Your task to perform on an android device: show emergency info Image 0: 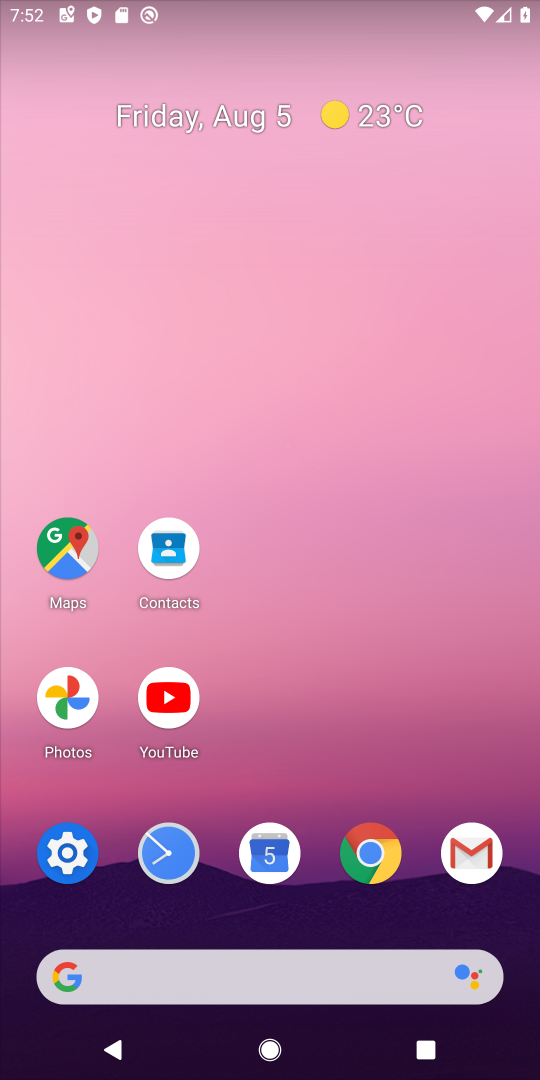
Step 0: drag from (309, 788) to (242, 144)
Your task to perform on an android device: show emergency info Image 1: 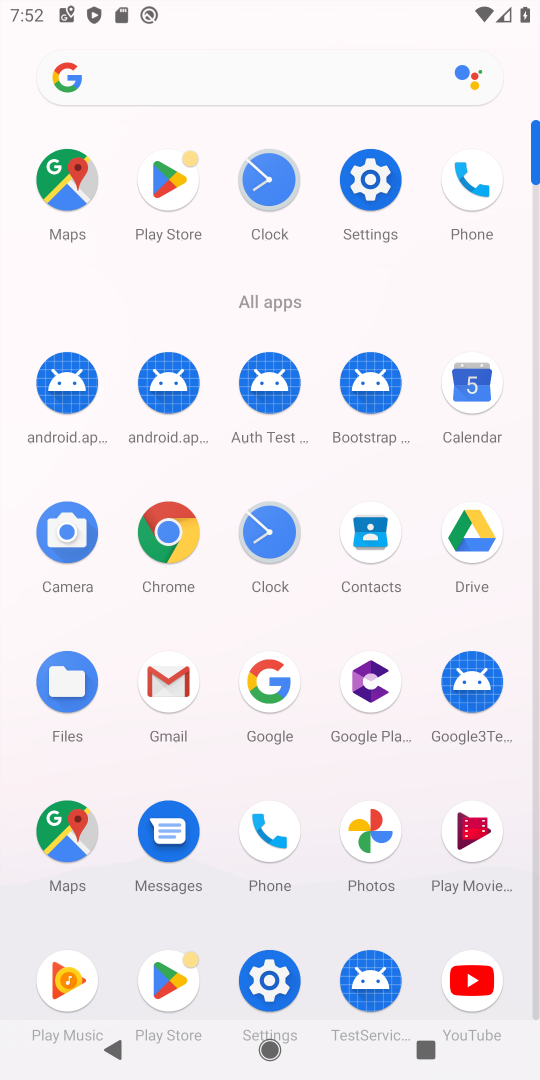
Step 1: click (390, 182)
Your task to perform on an android device: show emergency info Image 2: 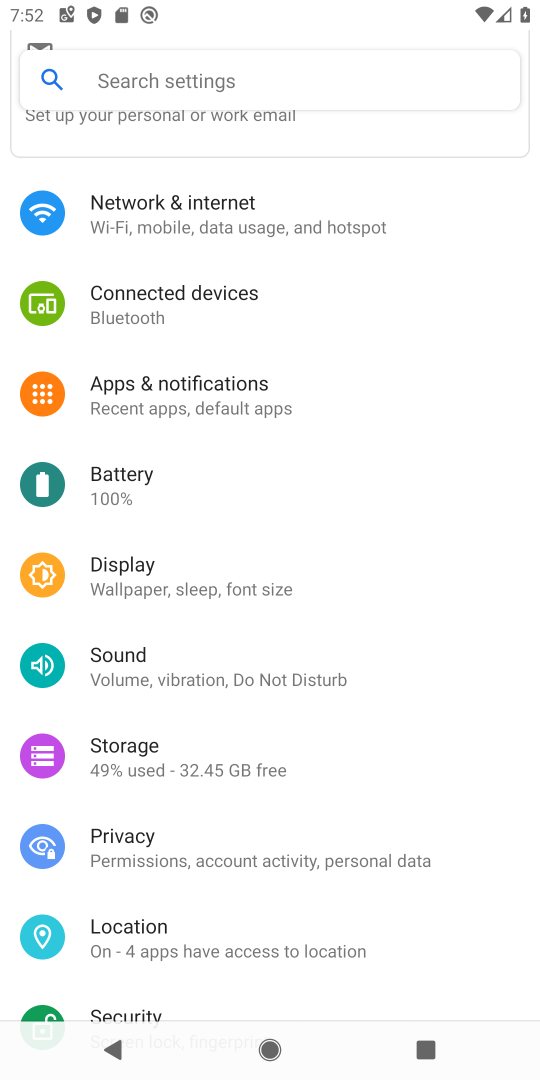
Step 2: drag from (312, 901) to (268, 221)
Your task to perform on an android device: show emergency info Image 3: 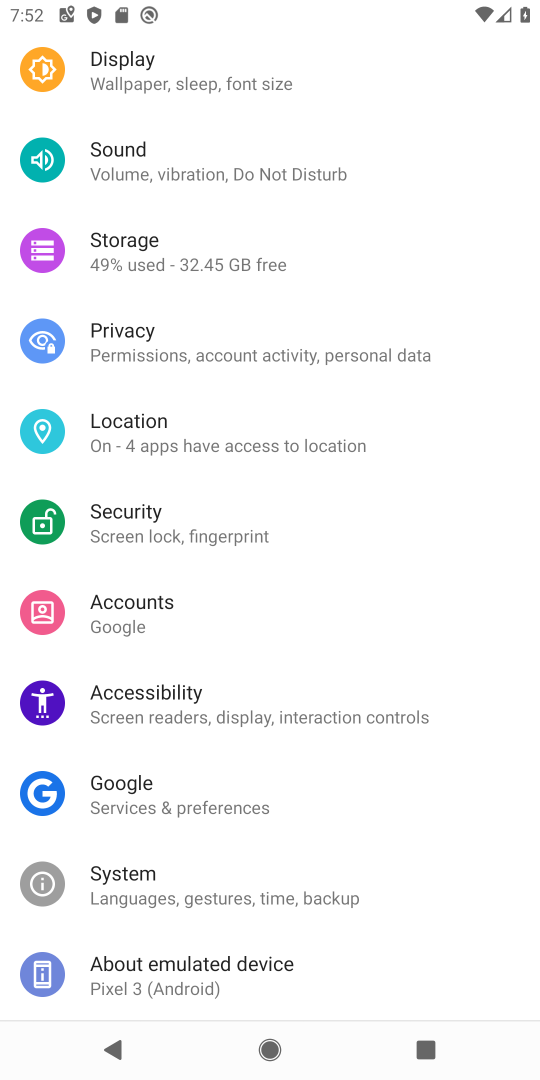
Step 3: click (159, 965)
Your task to perform on an android device: show emergency info Image 4: 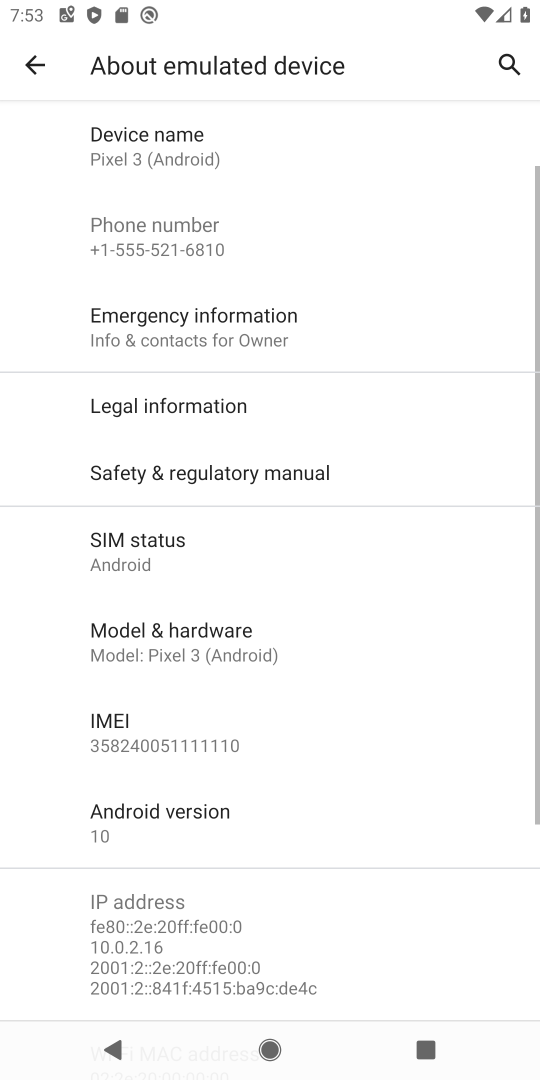
Step 4: click (179, 314)
Your task to perform on an android device: show emergency info Image 5: 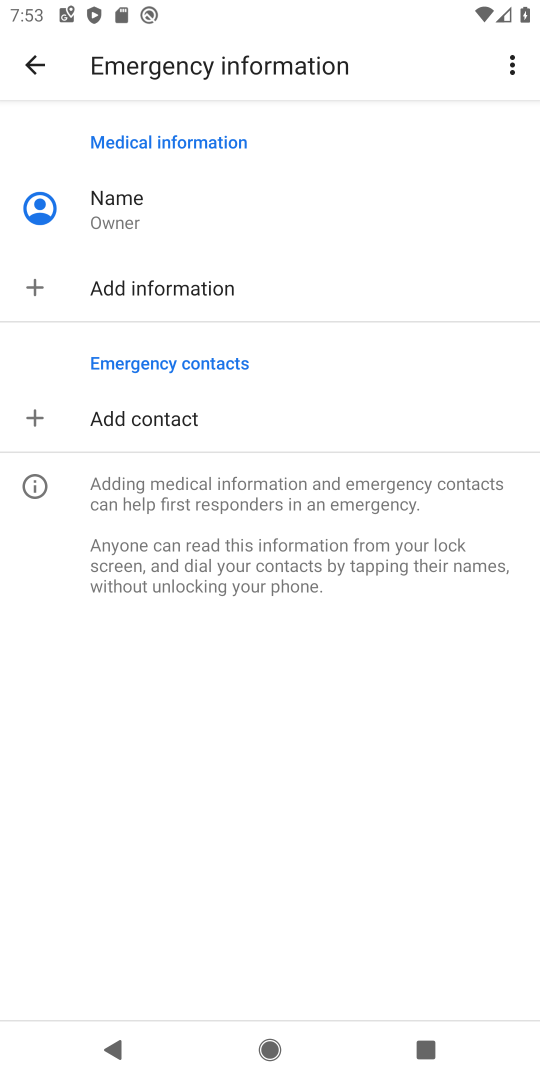
Step 5: task complete